Your task to perform on an android device: Show me productivity apps on the Play Store Image 0: 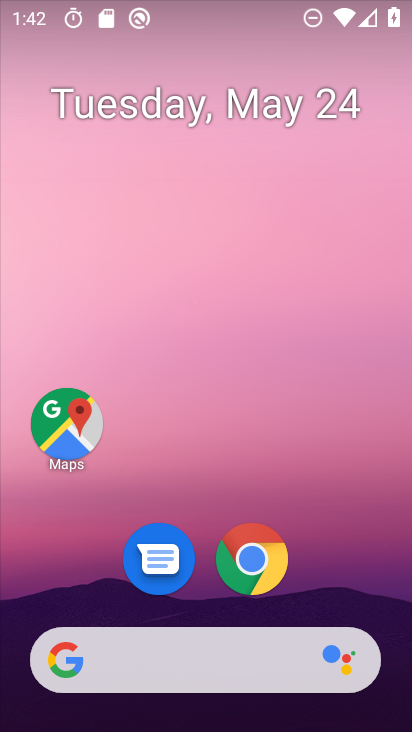
Step 0: drag from (400, 702) to (330, 221)
Your task to perform on an android device: Show me productivity apps on the Play Store Image 1: 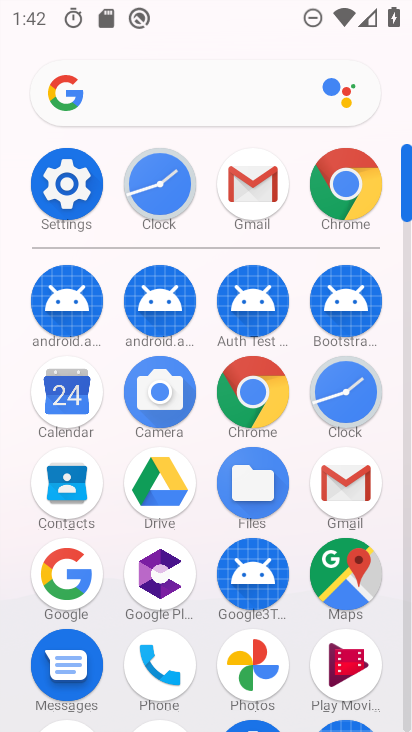
Step 1: drag from (407, 156) to (404, 64)
Your task to perform on an android device: Show me productivity apps on the Play Store Image 2: 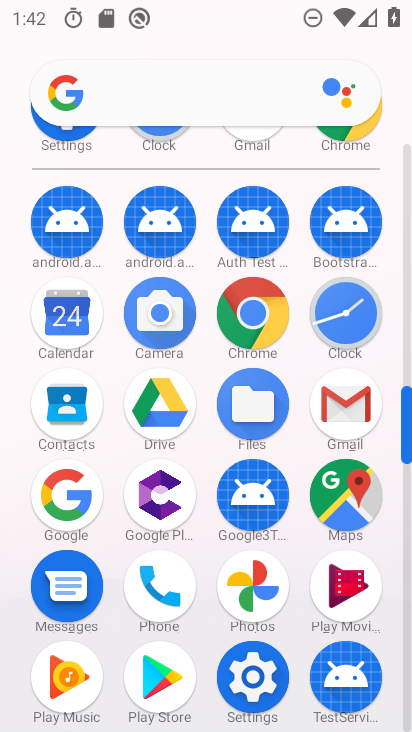
Step 2: click (157, 674)
Your task to perform on an android device: Show me productivity apps on the Play Store Image 3: 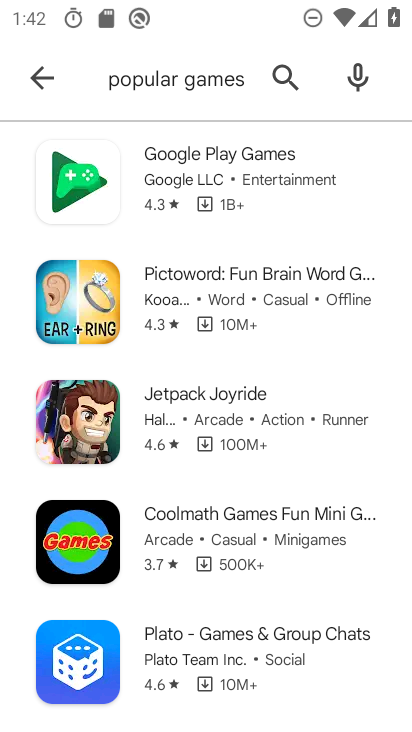
Step 3: click (235, 80)
Your task to perform on an android device: Show me productivity apps on the Play Store Image 4: 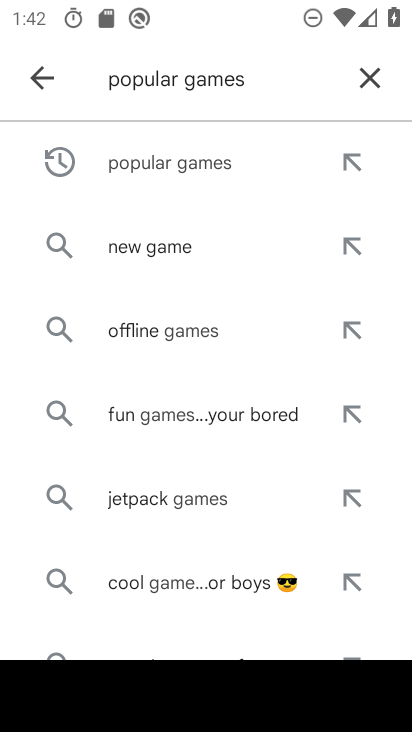
Step 4: click (362, 76)
Your task to perform on an android device: Show me productivity apps on the Play Store Image 5: 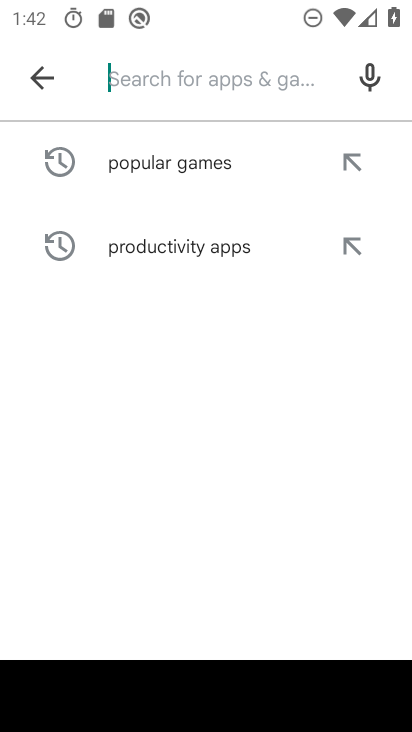
Step 5: type " productivity apps "
Your task to perform on an android device: Show me productivity apps on the Play Store Image 6: 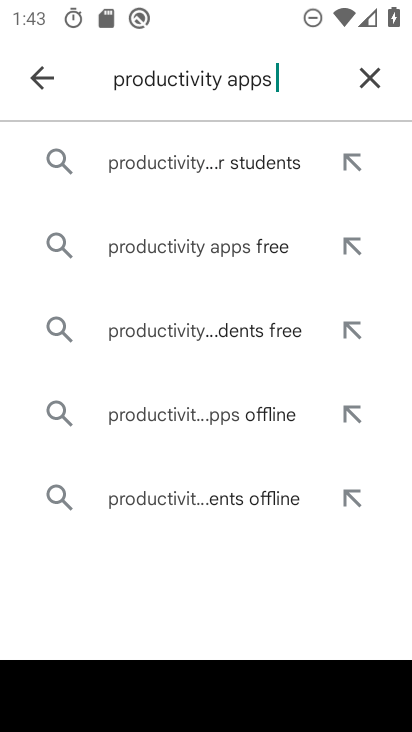
Step 6: drag from (208, 160) to (395, 176)
Your task to perform on an android device: Show me productivity apps on the Play Store Image 7: 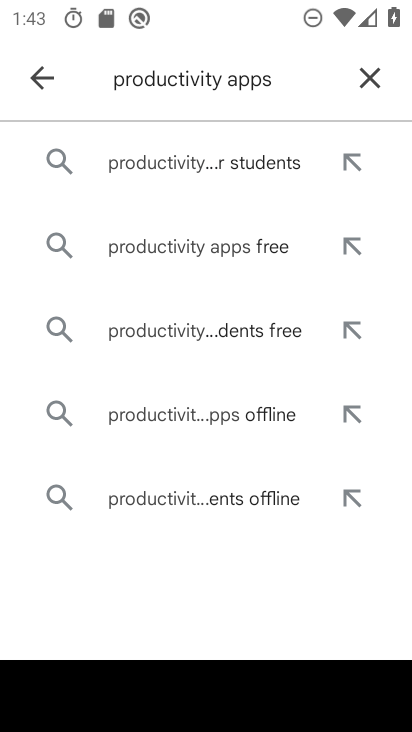
Step 7: click (141, 250)
Your task to perform on an android device: Show me productivity apps on the Play Store Image 8: 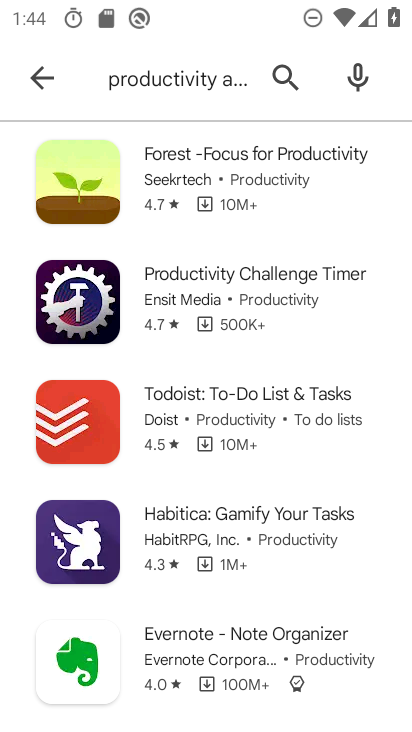
Step 8: task complete